Your task to perform on an android device: create a new album in the google photos Image 0: 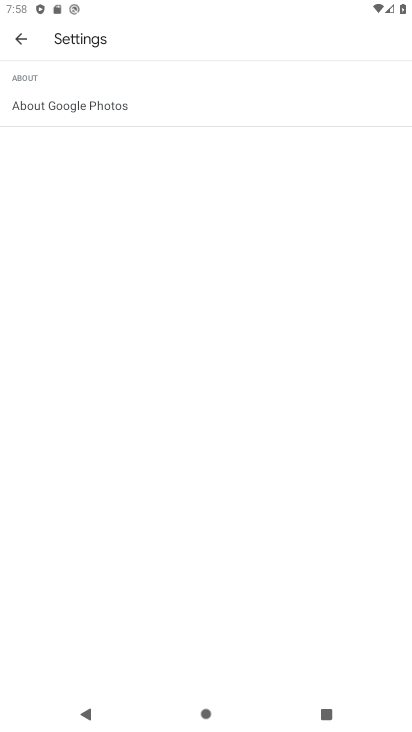
Step 0: press home button
Your task to perform on an android device: create a new album in the google photos Image 1: 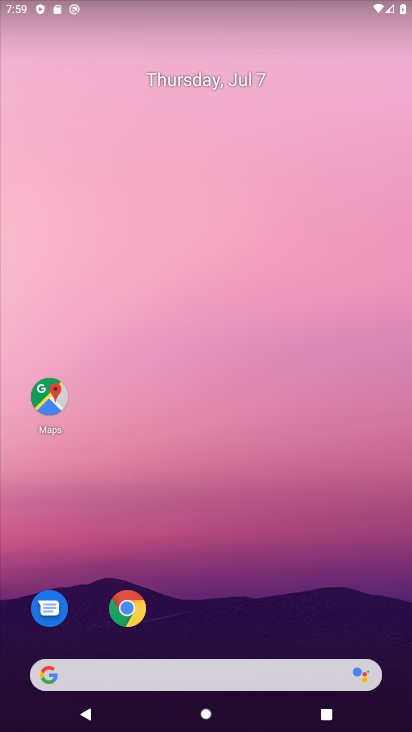
Step 1: drag from (336, 607) to (371, 199)
Your task to perform on an android device: create a new album in the google photos Image 2: 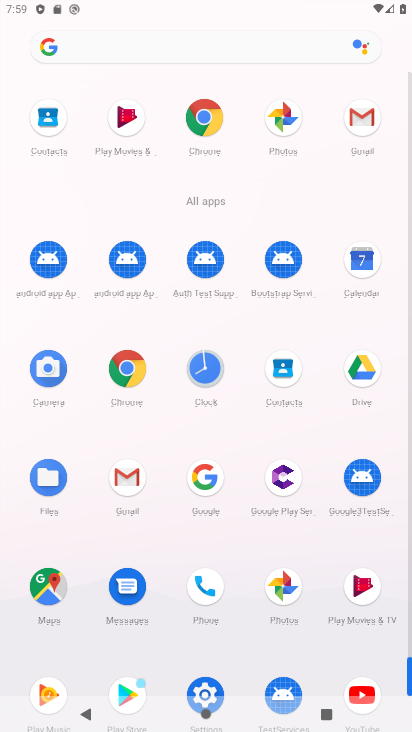
Step 2: click (295, 582)
Your task to perform on an android device: create a new album in the google photos Image 3: 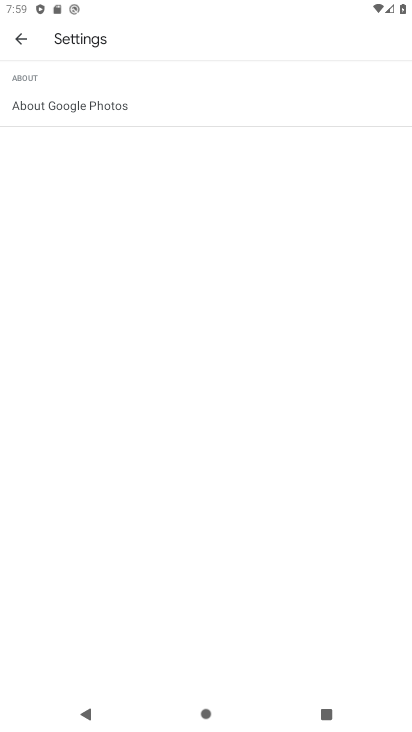
Step 3: press back button
Your task to perform on an android device: create a new album in the google photos Image 4: 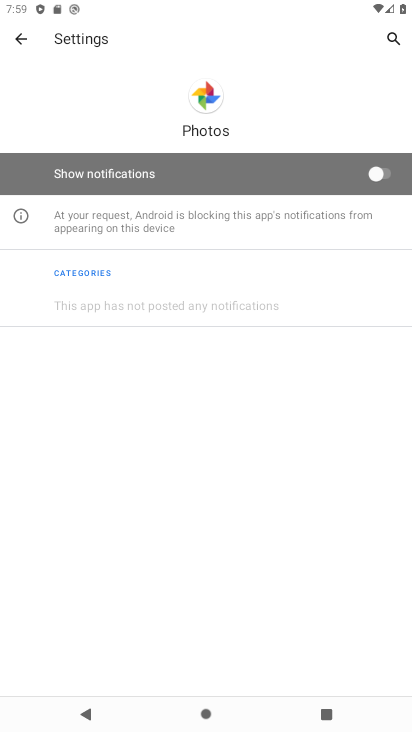
Step 4: press back button
Your task to perform on an android device: create a new album in the google photos Image 5: 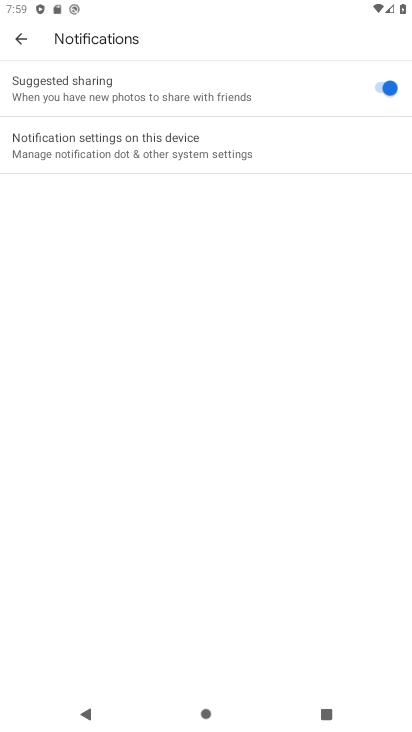
Step 5: press back button
Your task to perform on an android device: create a new album in the google photos Image 6: 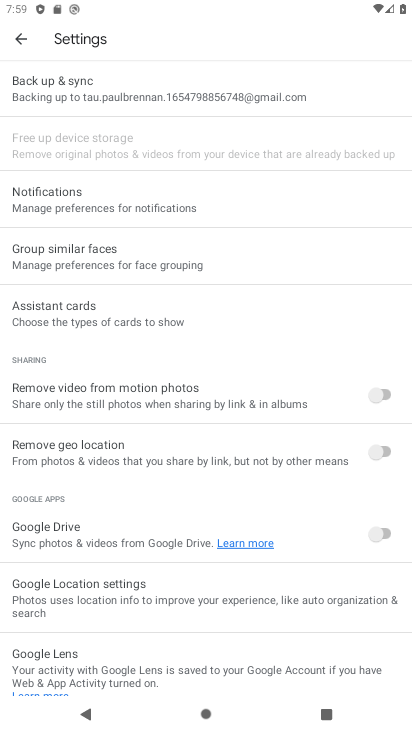
Step 6: press back button
Your task to perform on an android device: create a new album in the google photos Image 7: 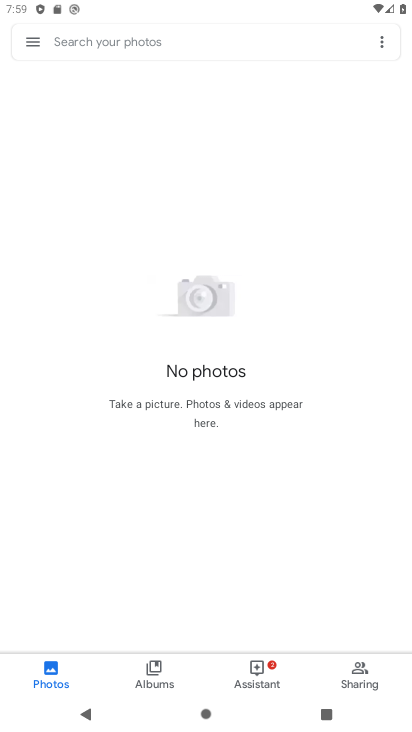
Step 7: click (380, 43)
Your task to perform on an android device: create a new album in the google photos Image 8: 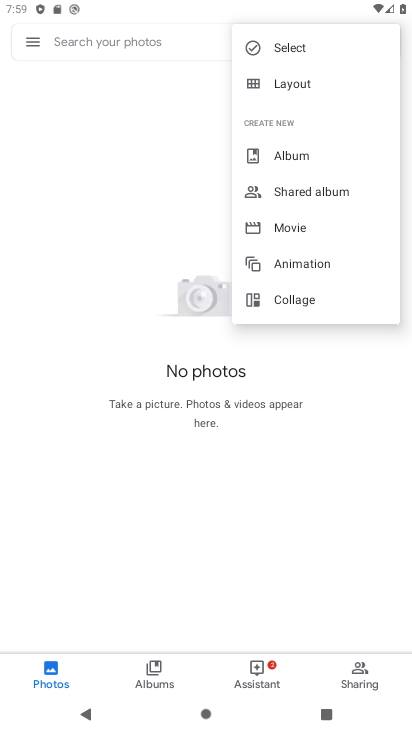
Step 8: click (320, 152)
Your task to perform on an android device: create a new album in the google photos Image 9: 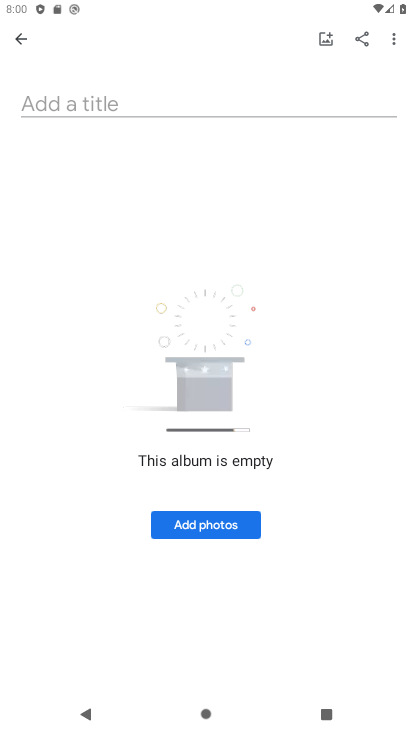
Step 9: click (135, 101)
Your task to perform on an android device: create a new album in the google photos Image 10: 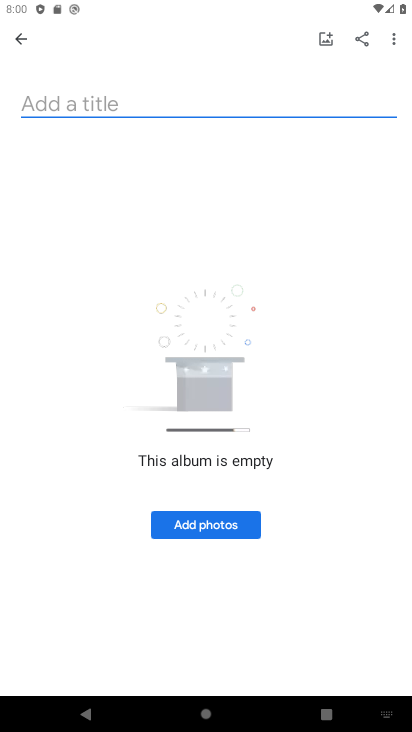
Step 10: type "fav"
Your task to perform on an android device: create a new album in the google photos Image 11: 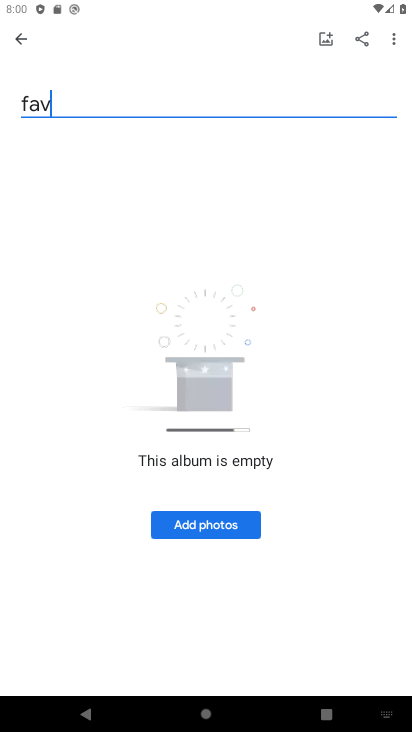
Step 11: click (218, 526)
Your task to perform on an android device: create a new album in the google photos Image 12: 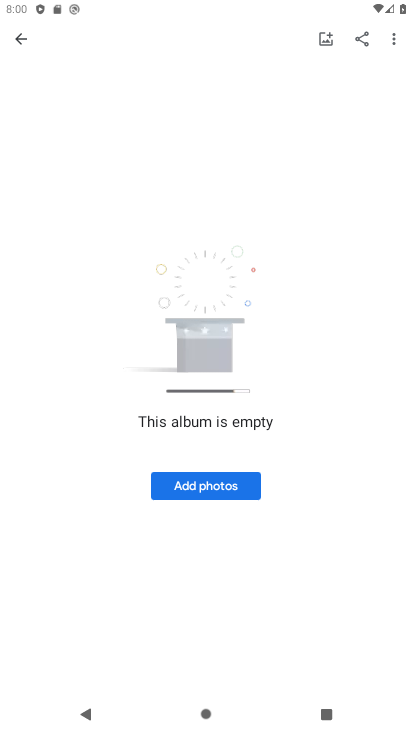
Step 12: click (198, 486)
Your task to perform on an android device: create a new album in the google photos Image 13: 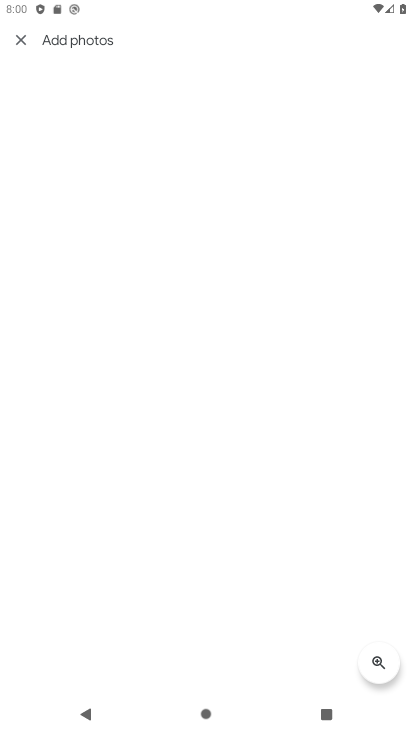
Step 13: task complete